Your task to perform on an android device: star an email in the gmail app Image 0: 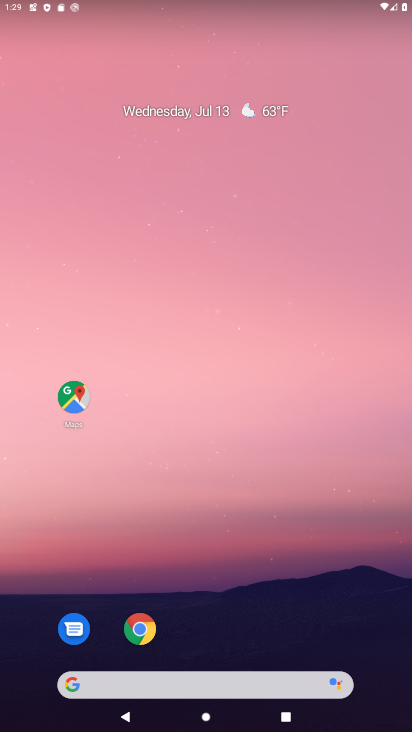
Step 0: click (218, 245)
Your task to perform on an android device: star an email in the gmail app Image 1: 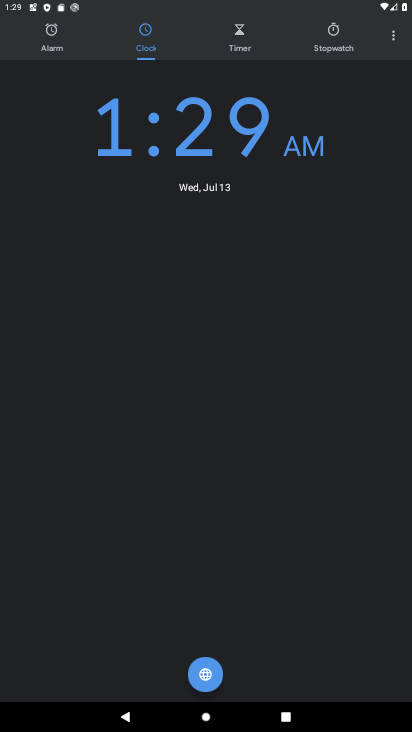
Step 1: press home button
Your task to perform on an android device: star an email in the gmail app Image 2: 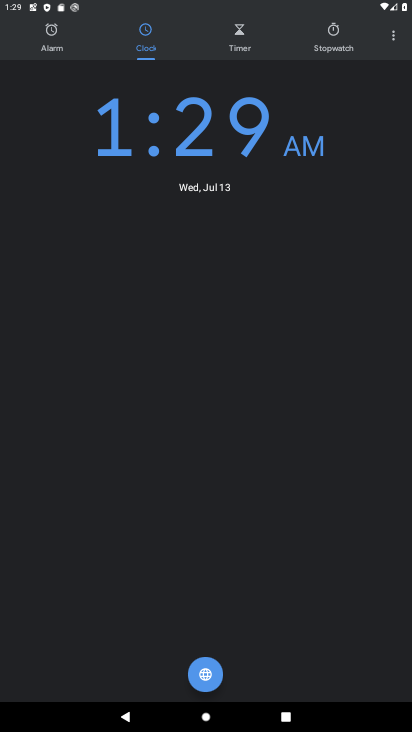
Step 2: press home button
Your task to perform on an android device: star an email in the gmail app Image 3: 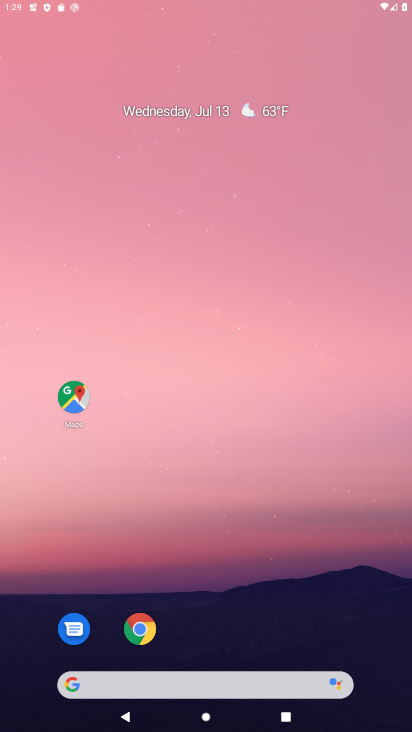
Step 3: drag from (177, 555) to (177, 165)
Your task to perform on an android device: star an email in the gmail app Image 4: 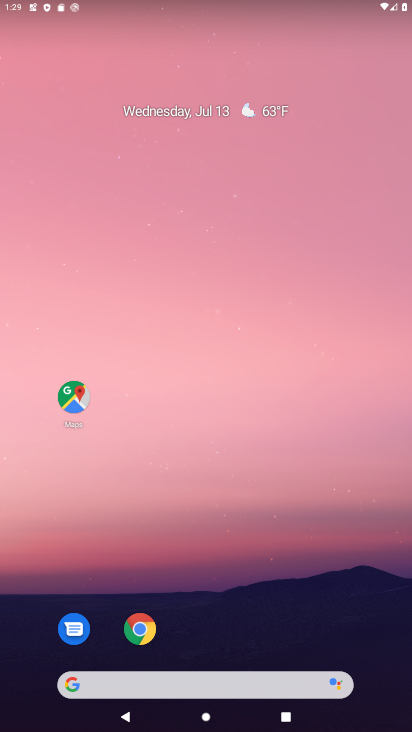
Step 4: drag from (210, 596) to (189, 423)
Your task to perform on an android device: star an email in the gmail app Image 5: 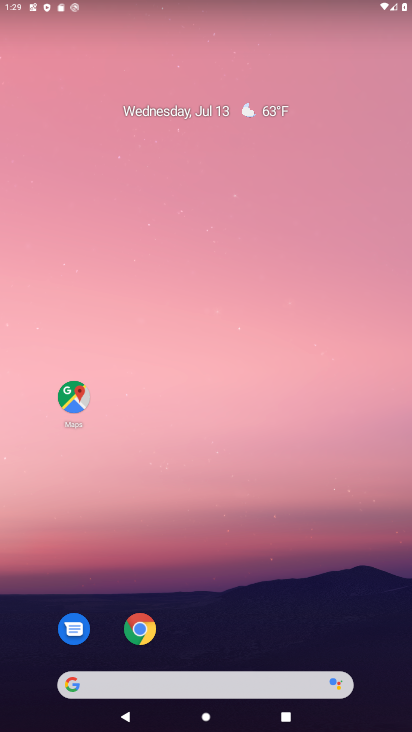
Step 5: drag from (167, 612) to (167, 385)
Your task to perform on an android device: star an email in the gmail app Image 6: 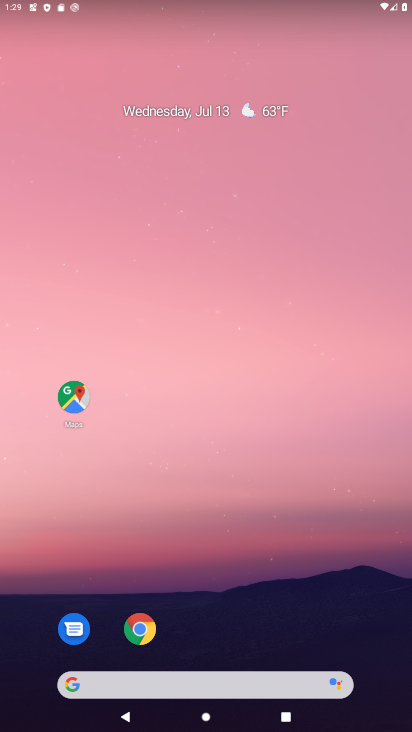
Step 6: drag from (198, 634) to (216, 102)
Your task to perform on an android device: star an email in the gmail app Image 7: 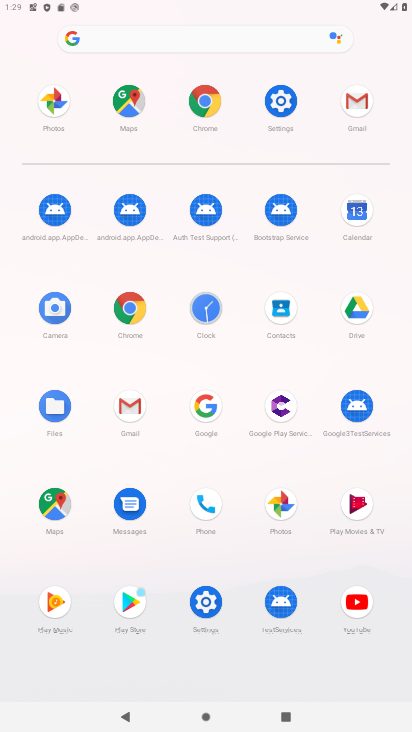
Step 7: click (130, 406)
Your task to perform on an android device: star an email in the gmail app Image 8: 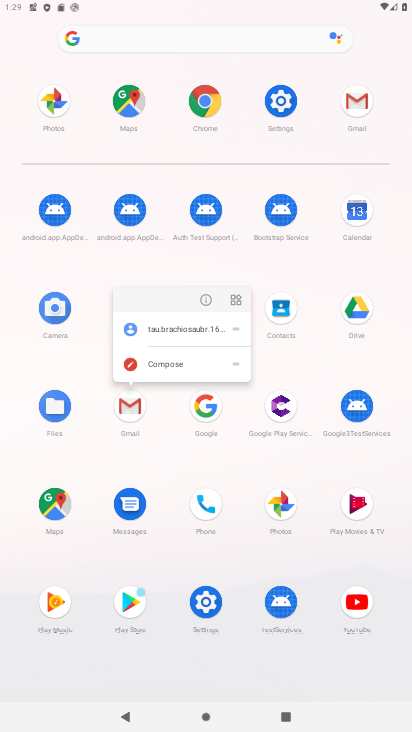
Step 8: click (208, 299)
Your task to perform on an android device: star an email in the gmail app Image 9: 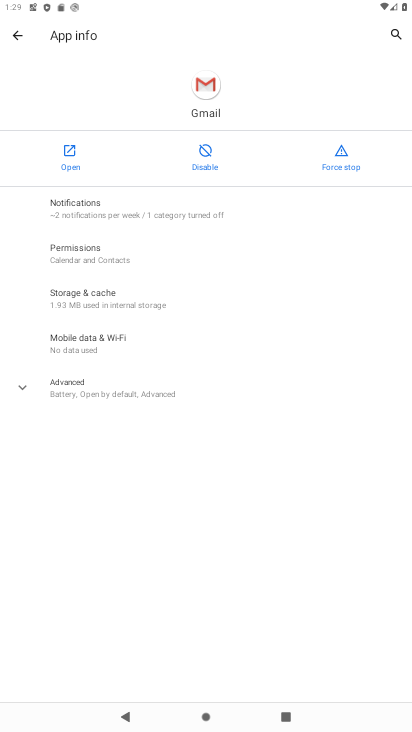
Step 9: click (70, 164)
Your task to perform on an android device: star an email in the gmail app Image 10: 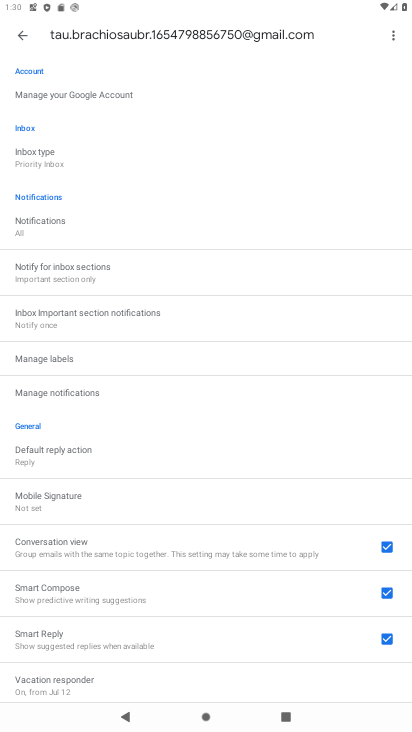
Step 10: drag from (113, 517) to (146, 198)
Your task to perform on an android device: star an email in the gmail app Image 11: 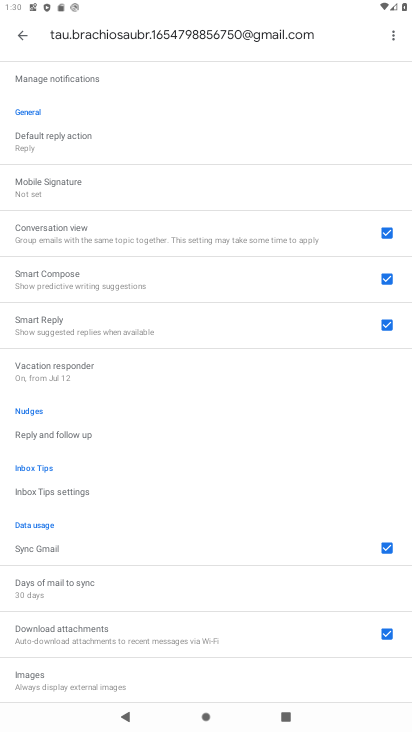
Step 11: click (26, 38)
Your task to perform on an android device: star an email in the gmail app Image 12: 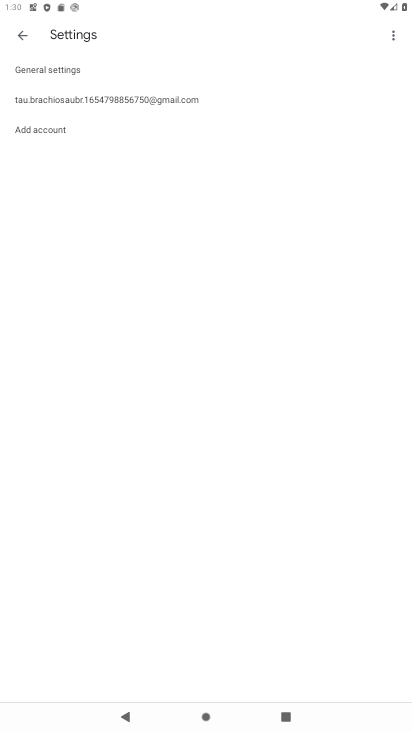
Step 12: click (25, 30)
Your task to perform on an android device: star an email in the gmail app Image 13: 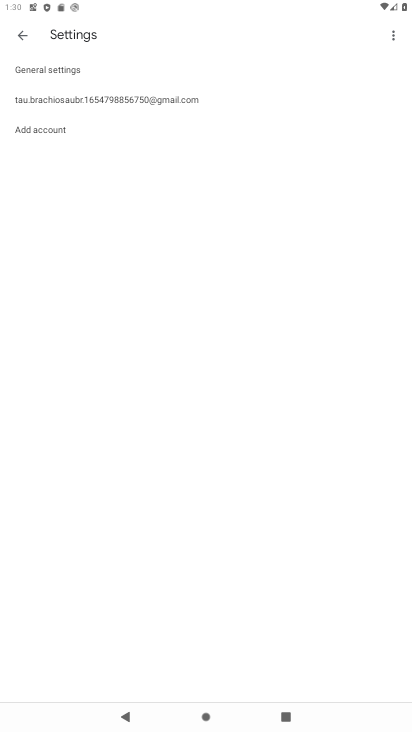
Step 13: click (21, 32)
Your task to perform on an android device: star an email in the gmail app Image 14: 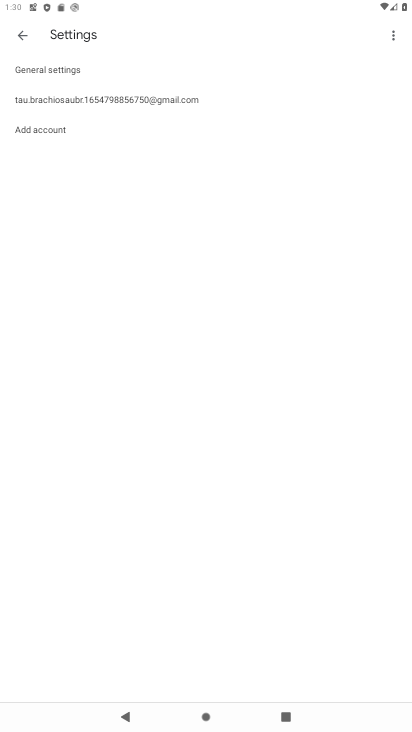
Step 14: click (27, 32)
Your task to perform on an android device: star an email in the gmail app Image 15: 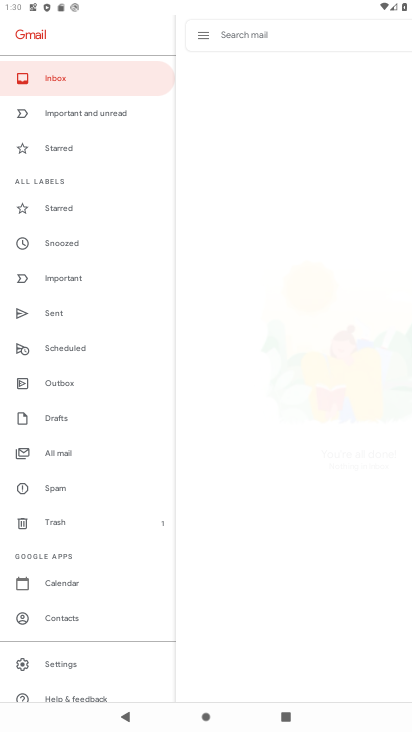
Step 15: click (53, 210)
Your task to perform on an android device: star an email in the gmail app Image 16: 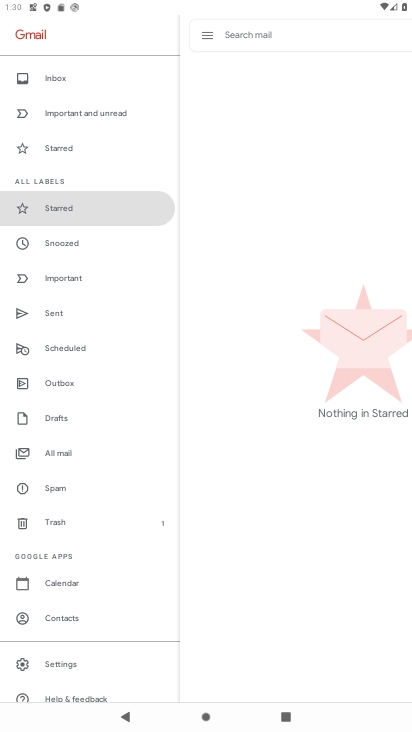
Step 16: click (31, 203)
Your task to perform on an android device: star an email in the gmail app Image 17: 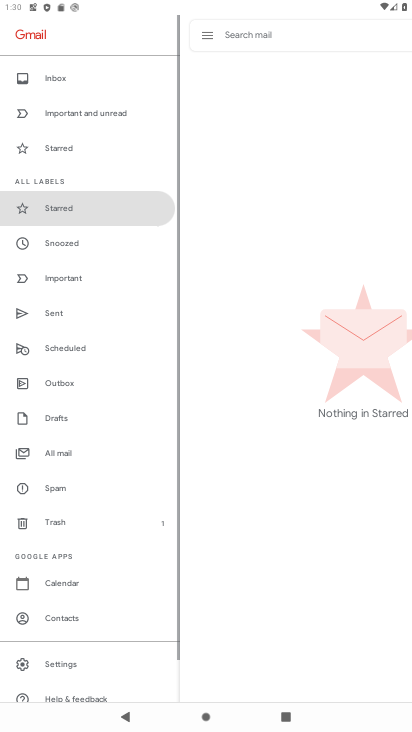
Step 17: click (256, 205)
Your task to perform on an android device: star an email in the gmail app Image 18: 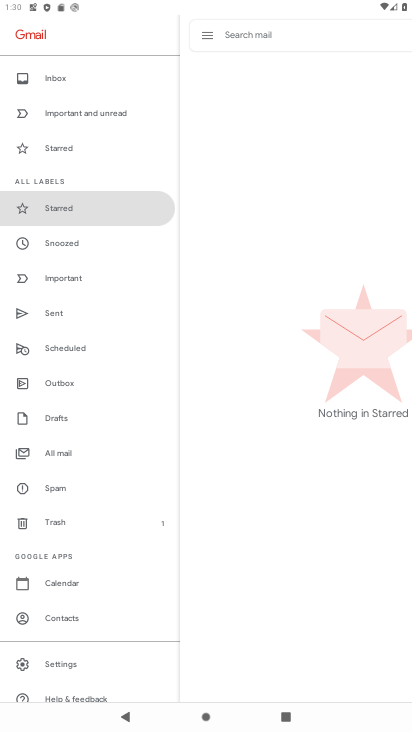
Step 18: task complete